Your task to perform on an android device: Go to ESPN.com Image 0: 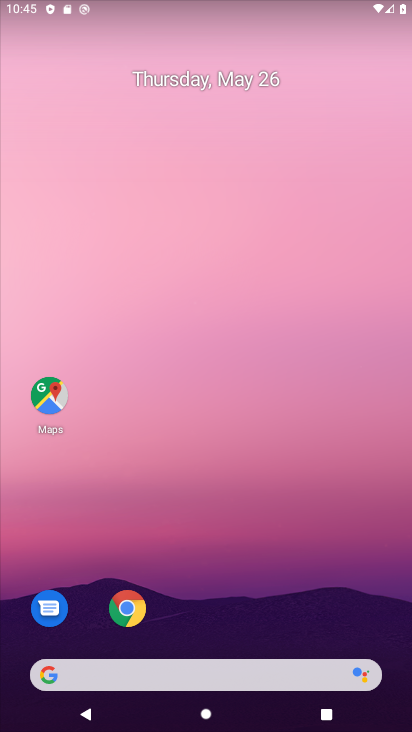
Step 0: drag from (302, 518) to (304, 127)
Your task to perform on an android device: Go to ESPN.com Image 1: 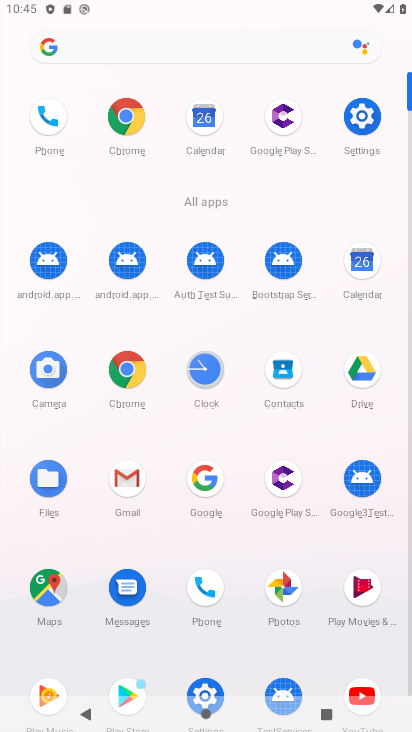
Step 1: click (128, 116)
Your task to perform on an android device: Go to ESPN.com Image 2: 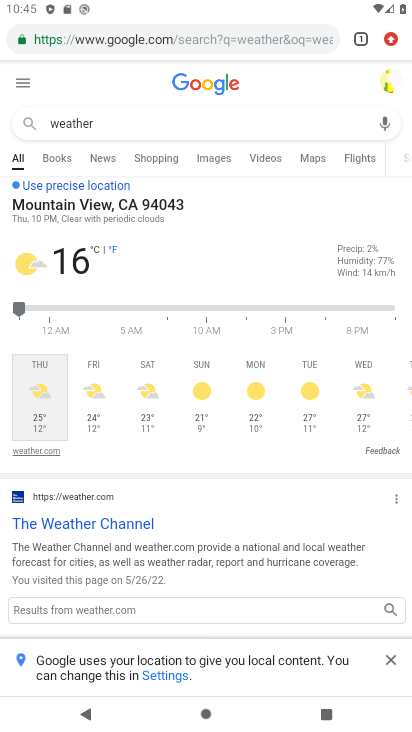
Step 2: click (242, 36)
Your task to perform on an android device: Go to ESPN.com Image 3: 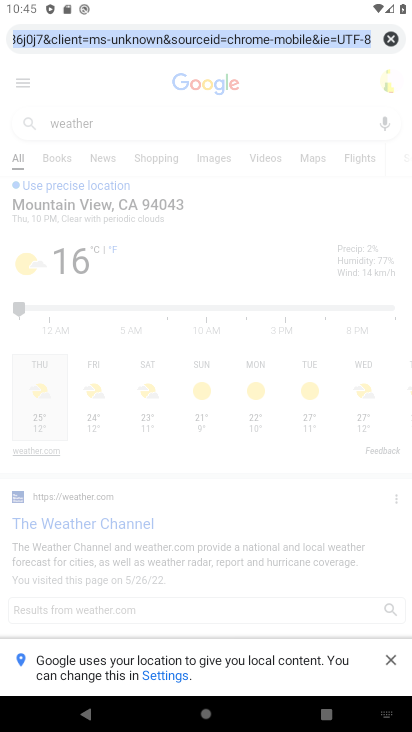
Step 3: type "espn.com"
Your task to perform on an android device: Go to ESPN.com Image 4: 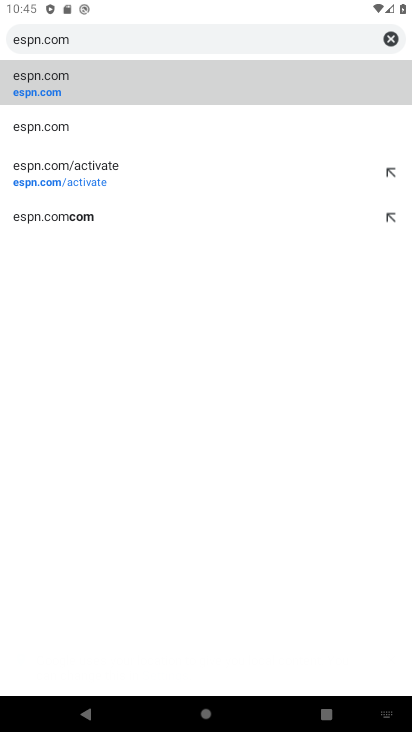
Step 4: click (37, 96)
Your task to perform on an android device: Go to ESPN.com Image 5: 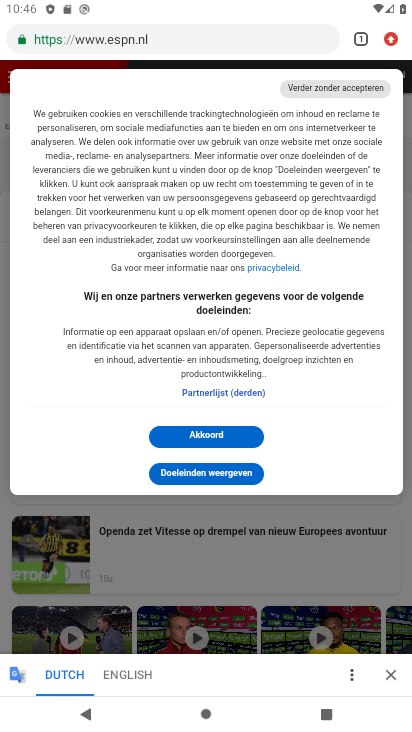
Step 5: task complete